Your task to perform on an android device: move an email to a new category in the gmail app Image 0: 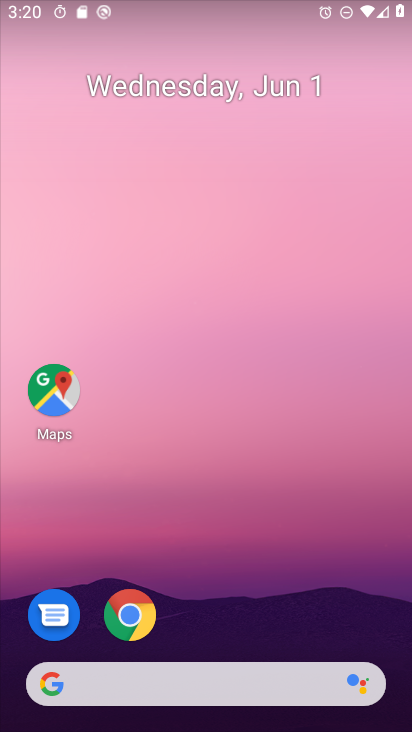
Step 0: drag from (226, 674) to (316, 1)
Your task to perform on an android device: move an email to a new category in the gmail app Image 1: 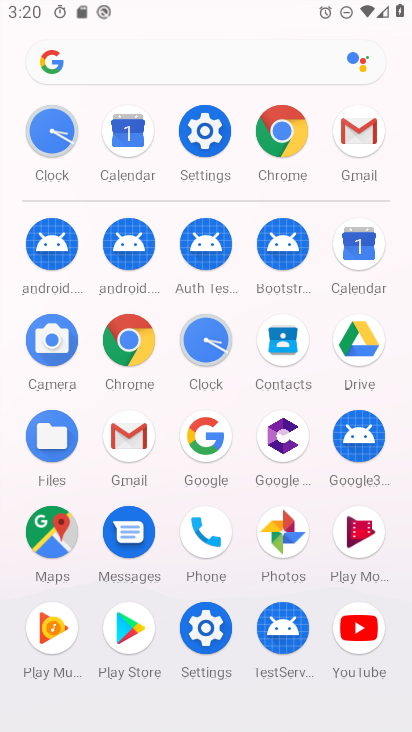
Step 1: click (138, 437)
Your task to perform on an android device: move an email to a new category in the gmail app Image 2: 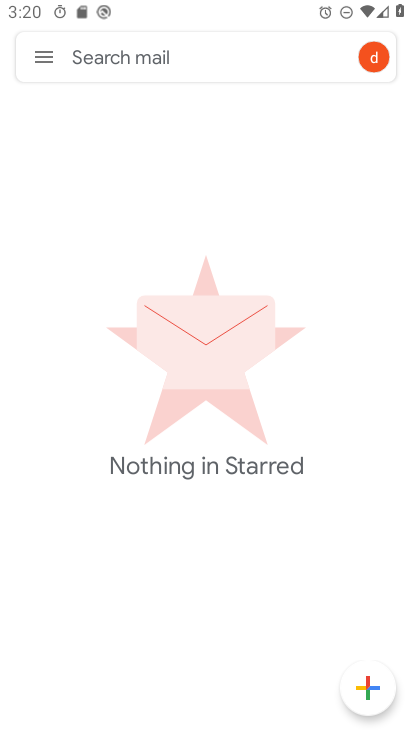
Step 2: click (38, 64)
Your task to perform on an android device: move an email to a new category in the gmail app Image 3: 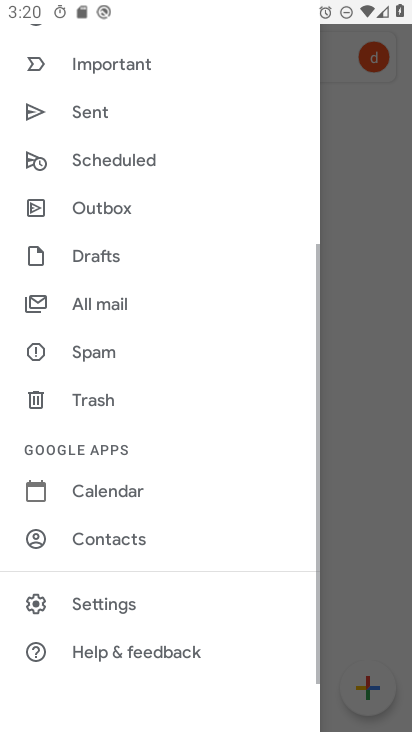
Step 3: click (114, 105)
Your task to perform on an android device: move an email to a new category in the gmail app Image 4: 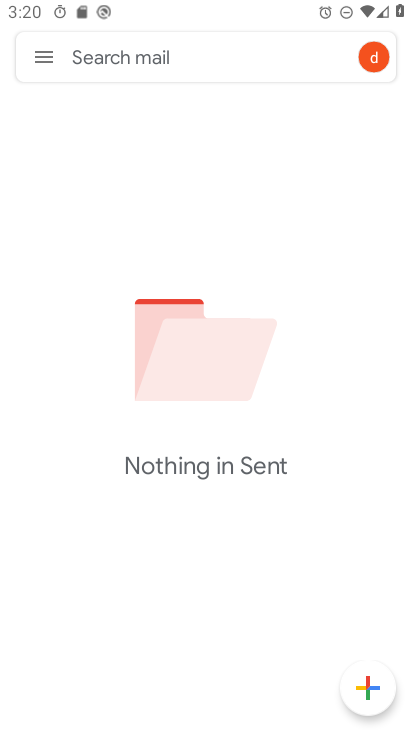
Step 4: task complete